Your task to perform on an android device: Go to network settings Image 0: 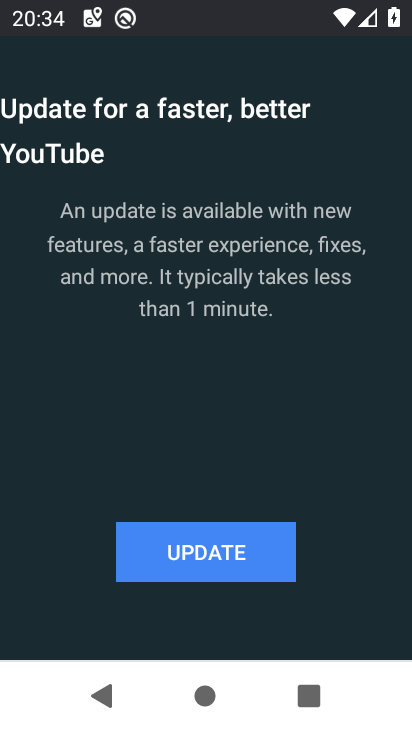
Step 0: press home button
Your task to perform on an android device: Go to network settings Image 1: 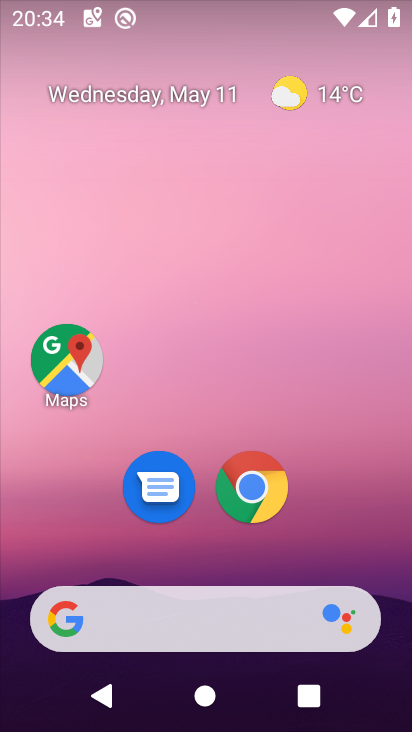
Step 1: drag from (237, 575) to (299, 129)
Your task to perform on an android device: Go to network settings Image 2: 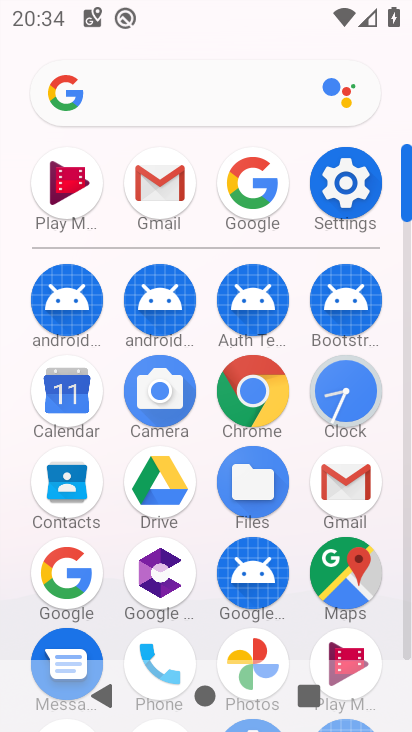
Step 2: click (348, 176)
Your task to perform on an android device: Go to network settings Image 3: 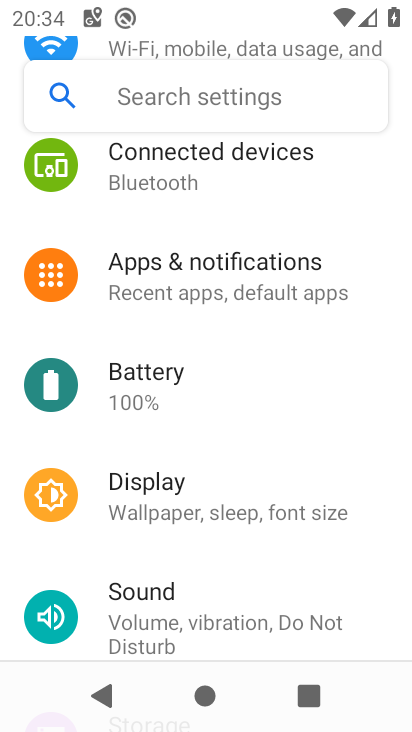
Step 3: drag from (212, 232) to (224, 530)
Your task to perform on an android device: Go to network settings Image 4: 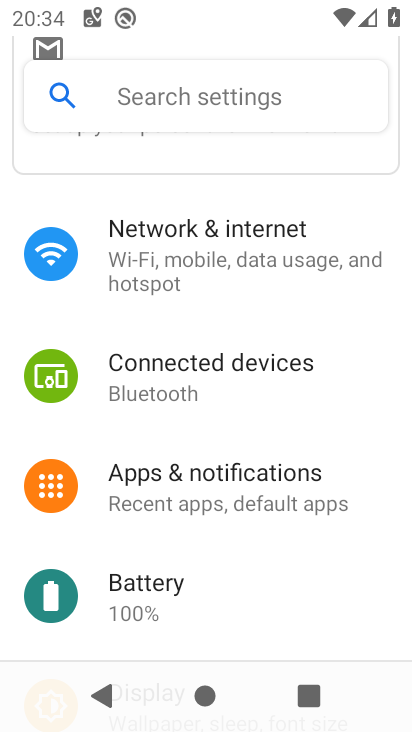
Step 4: click (204, 265)
Your task to perform on an android device: Go to network settings Image 5: 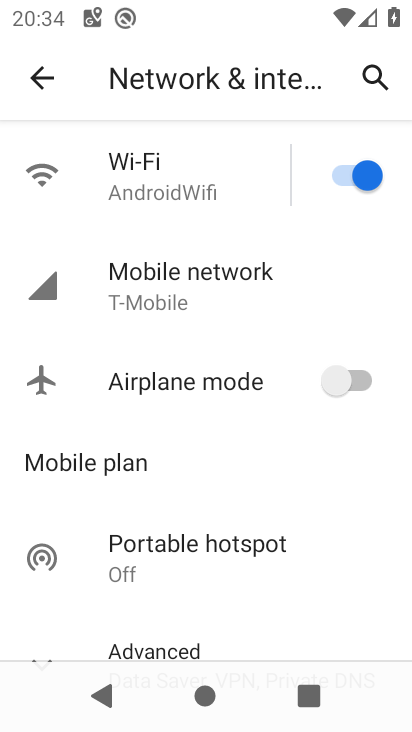
Step 5: click (134, 305)
Your task to perform on an android device: Go to network settings Image 6: 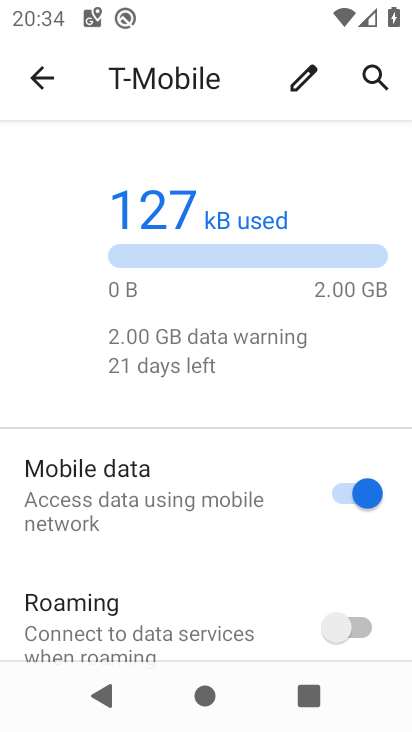
Step 6: drag from (188, 614) to (245, 224)
Your task to perform on an android device: Go to network settings Image 7: 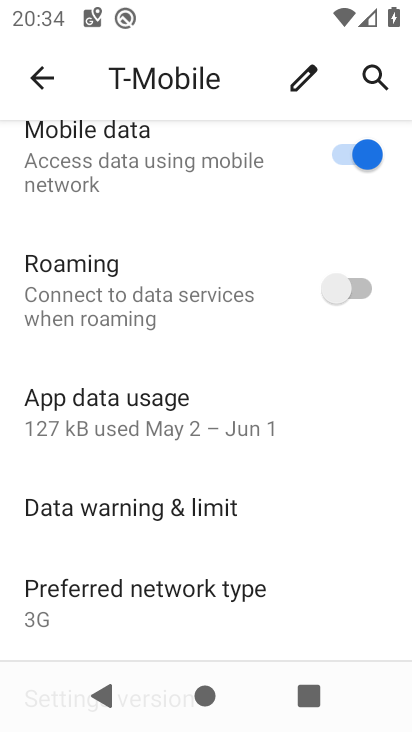
Step 7: drag from (190, 628) to (236, 291)
Your task to perform on an android device: Go to network settings Image 8: 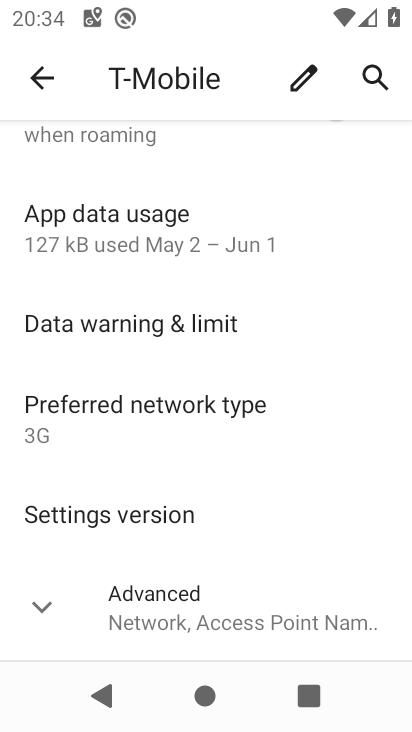
Step 8: click (186, 604)
Your task to perform on an android device: Go to network settings Image 9: 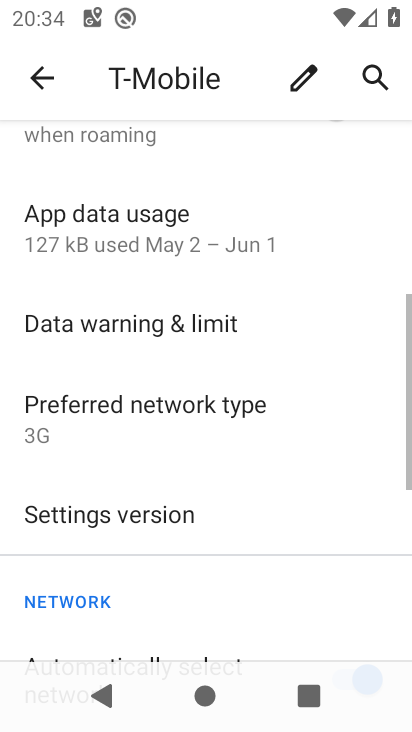
Step 9: task complete